Your task to perform on an android device: refresh tabs in the chrome app Image 0: 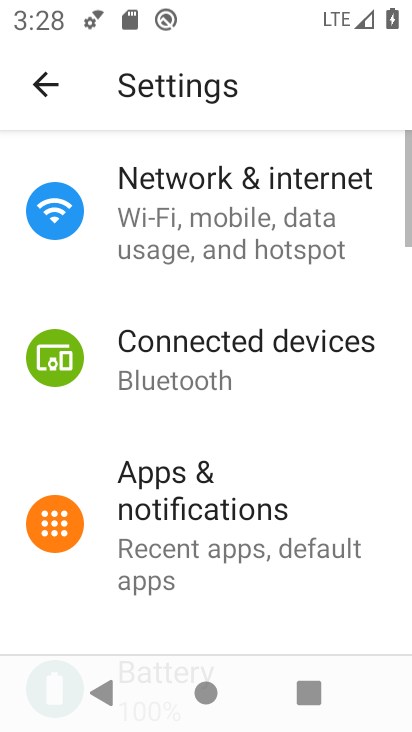
Step 0: press home button
Your task to perform on an android device: refresh tabs in the chrome app Image 1: 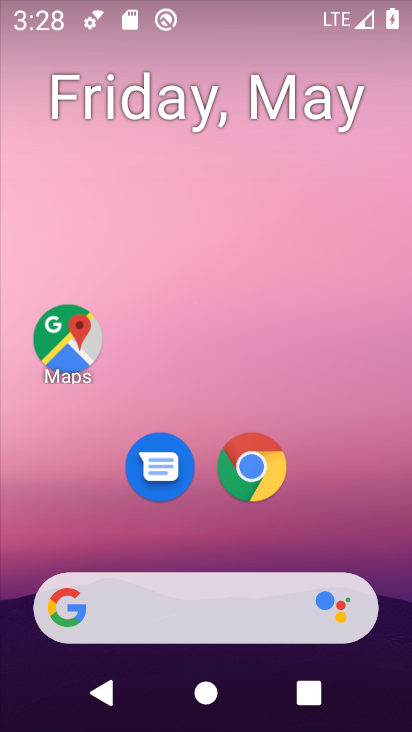
Step 1: click (252, 457)
Your task to perform on an android device: refresh tabs in the chrome app Image 2: 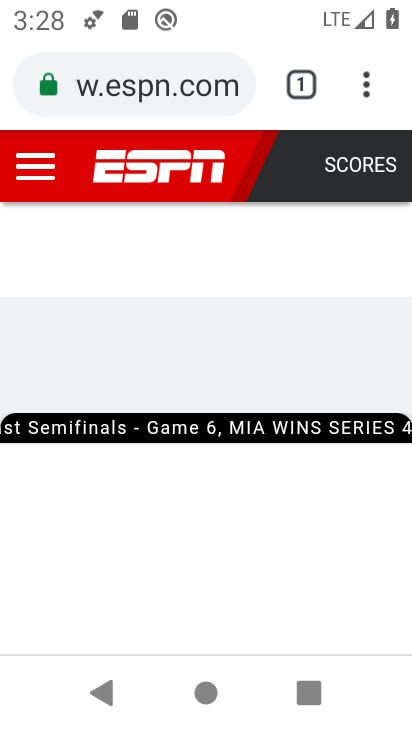
Step 2: click (363, 74)
Your task to perform on an android device: refresh tabs in the chrome app Image 3: 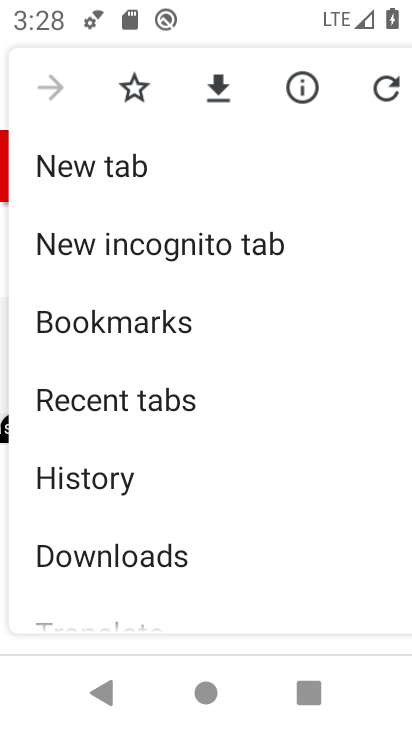
Step 3: click (372, 85)
Your task to perform on an android device: refresh tabs in the chrome app Image 4: 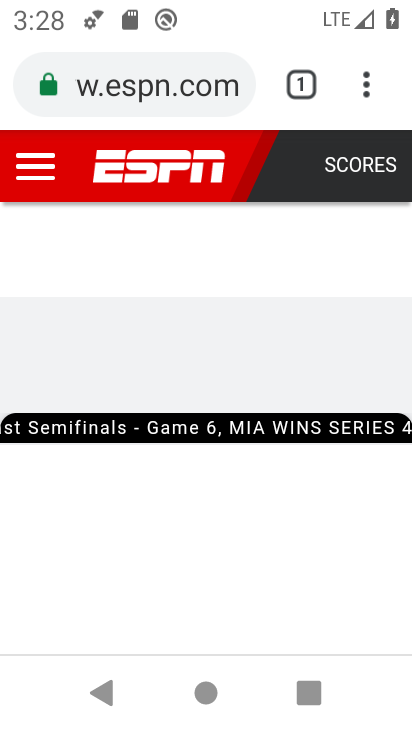
Step 4: task complete